Your task to perform on an android device: Clear the shopping cart on newegg. Image 0: 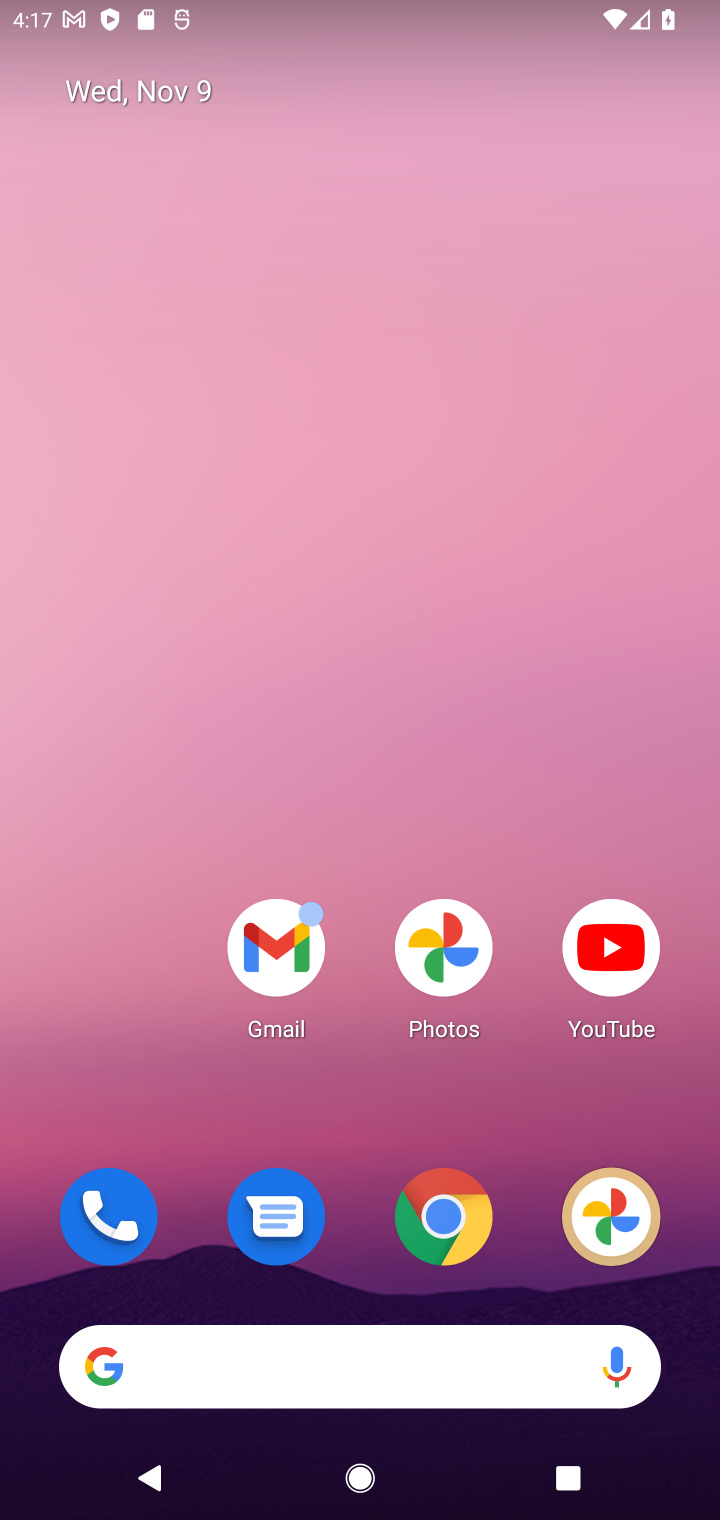
Step 0: drag from (365, 971) to (416, 102)
Your task to perform on an android device: Clear the shopping cart on newegg. Image 1: 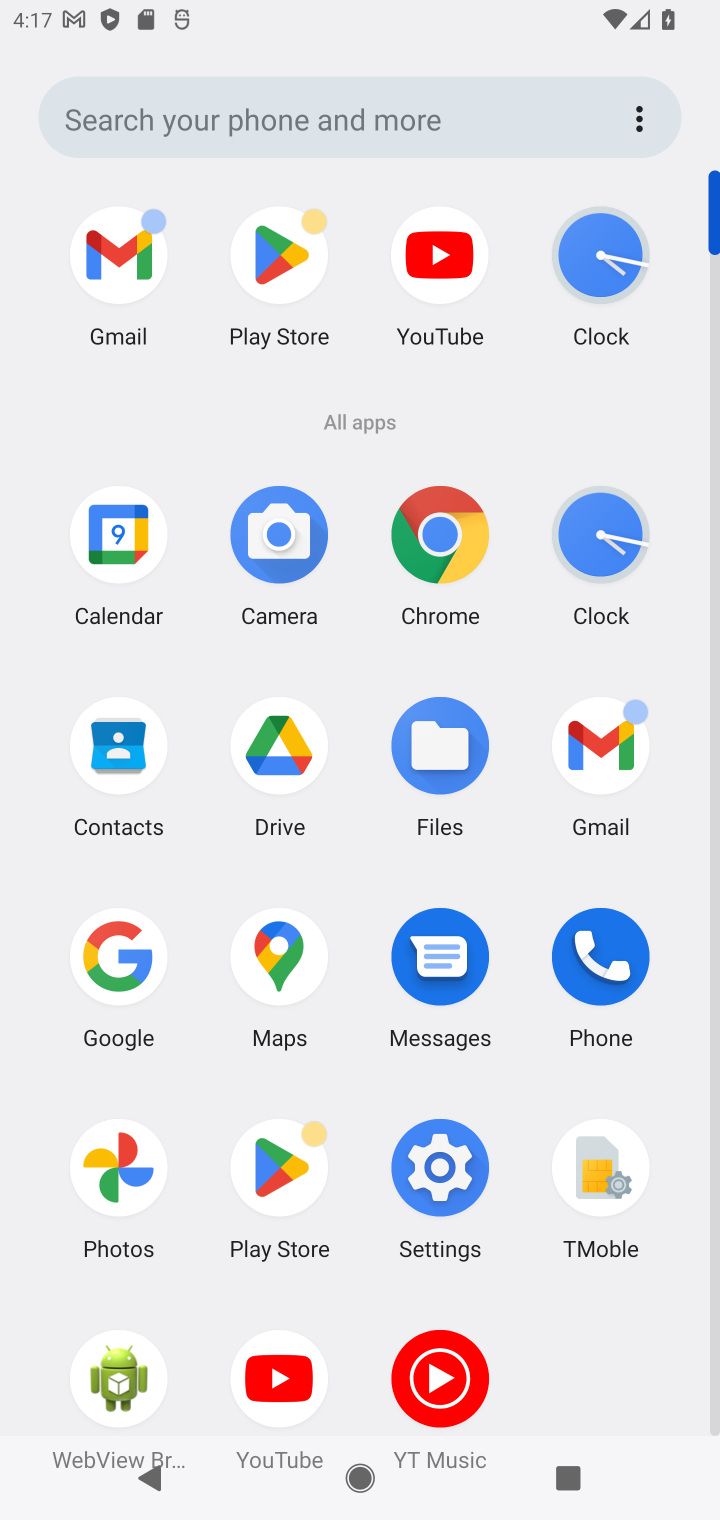
Step 1: click (442, 525)
Your task to perform on an android device: Clear the shopping cart on newegg. Image 2: 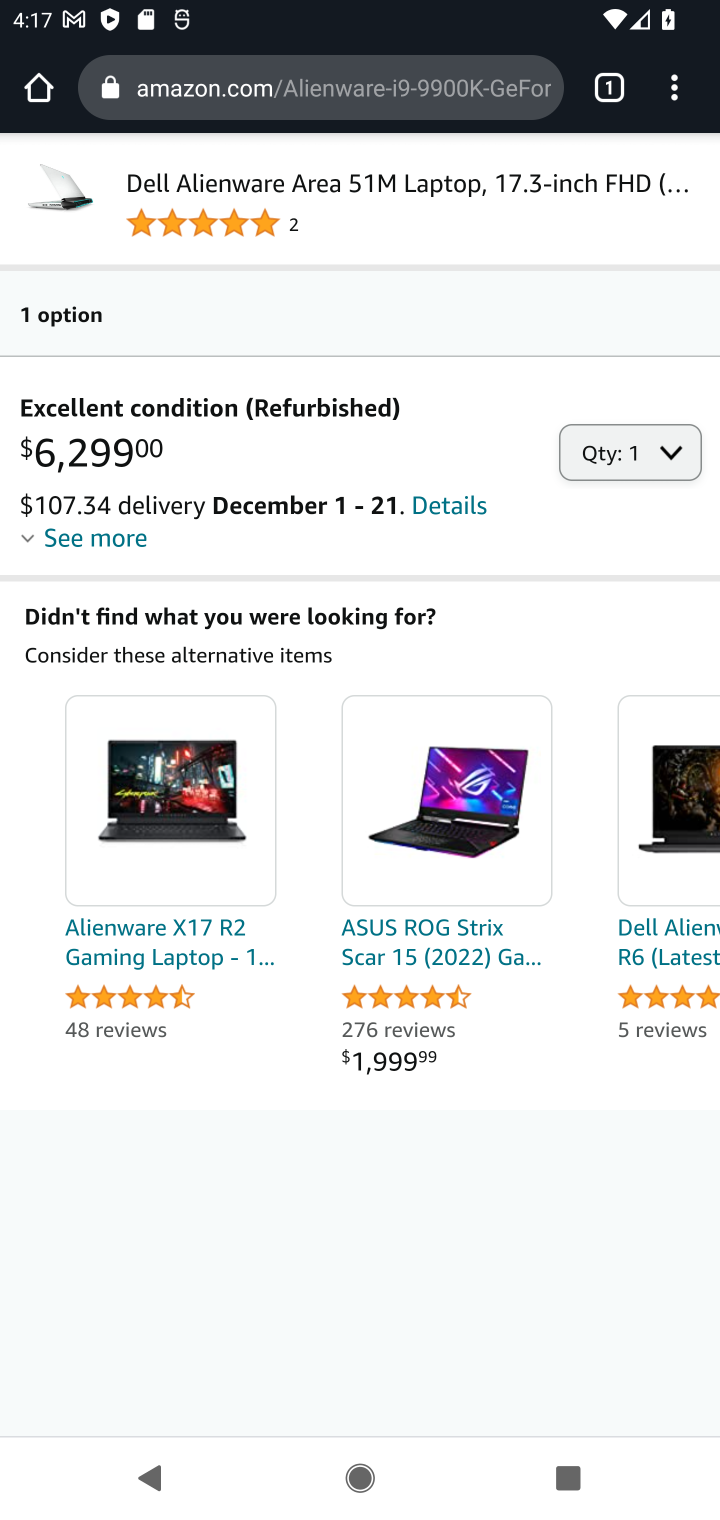
Step 2: click (383, 77)
Your task to perform on an android device: Clear the shopping cart on newegg. Image 3: 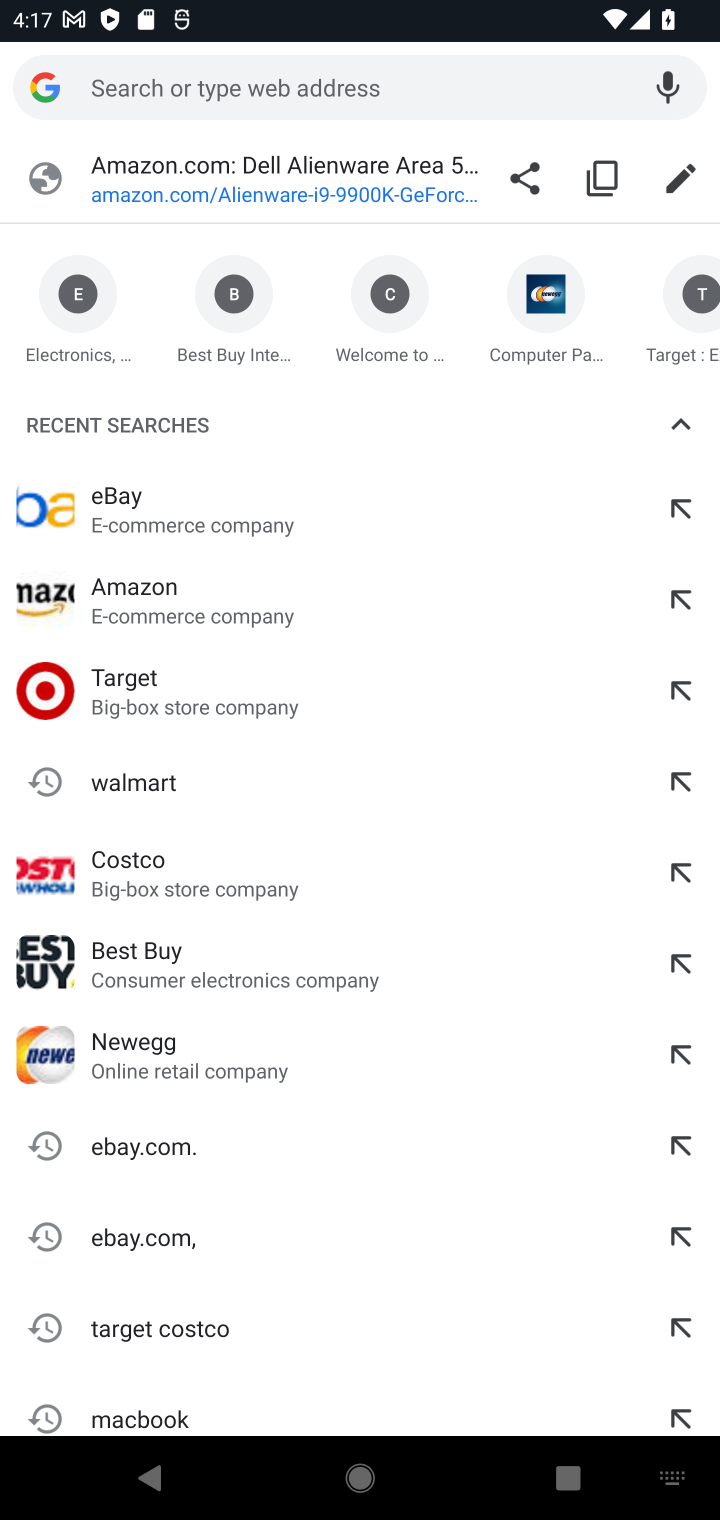
Step 3: type "newegg.com"
Your task to perform on an android device: Clear the shopping cart on newegg. Image 4: 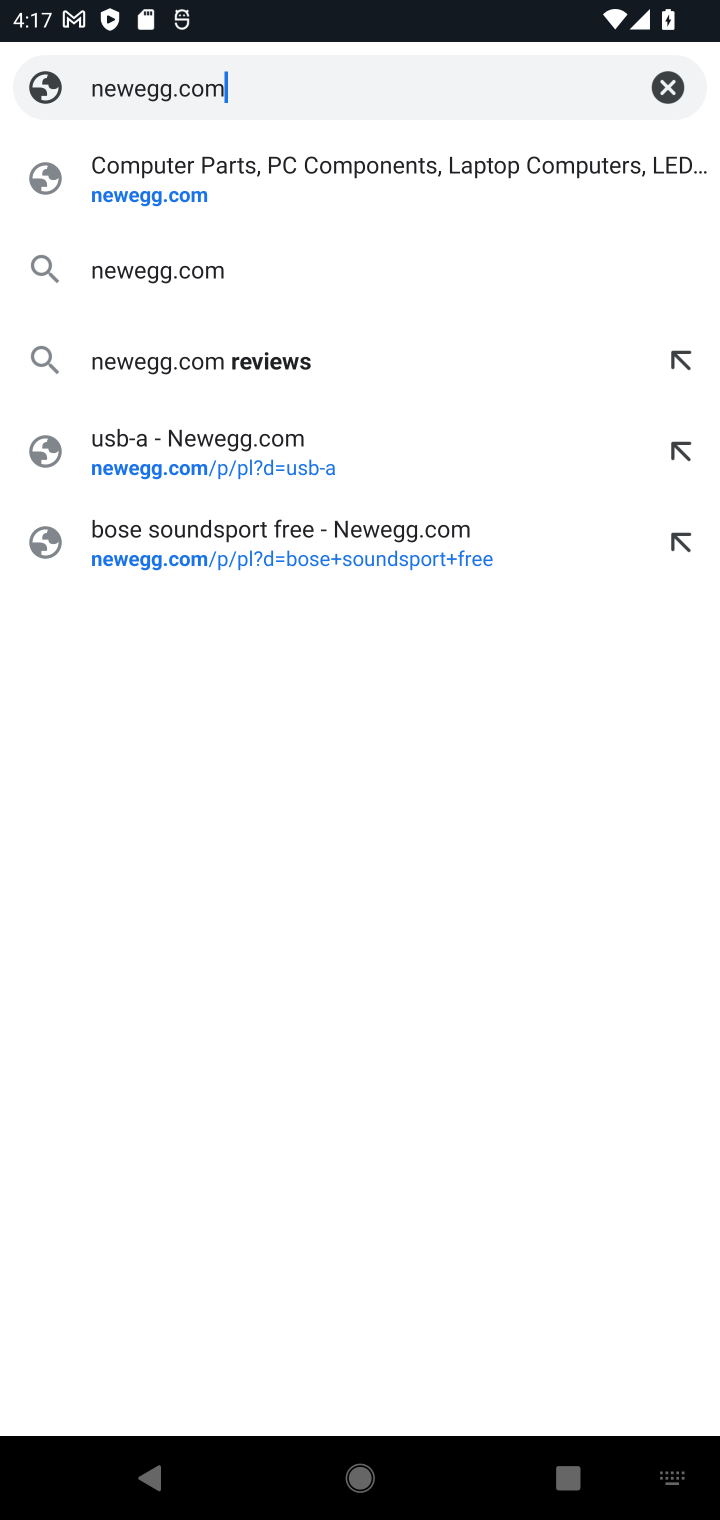
Step 4: press enter
Your task to perform on an android device: Clear the shopping cart on newegg. Image 5: 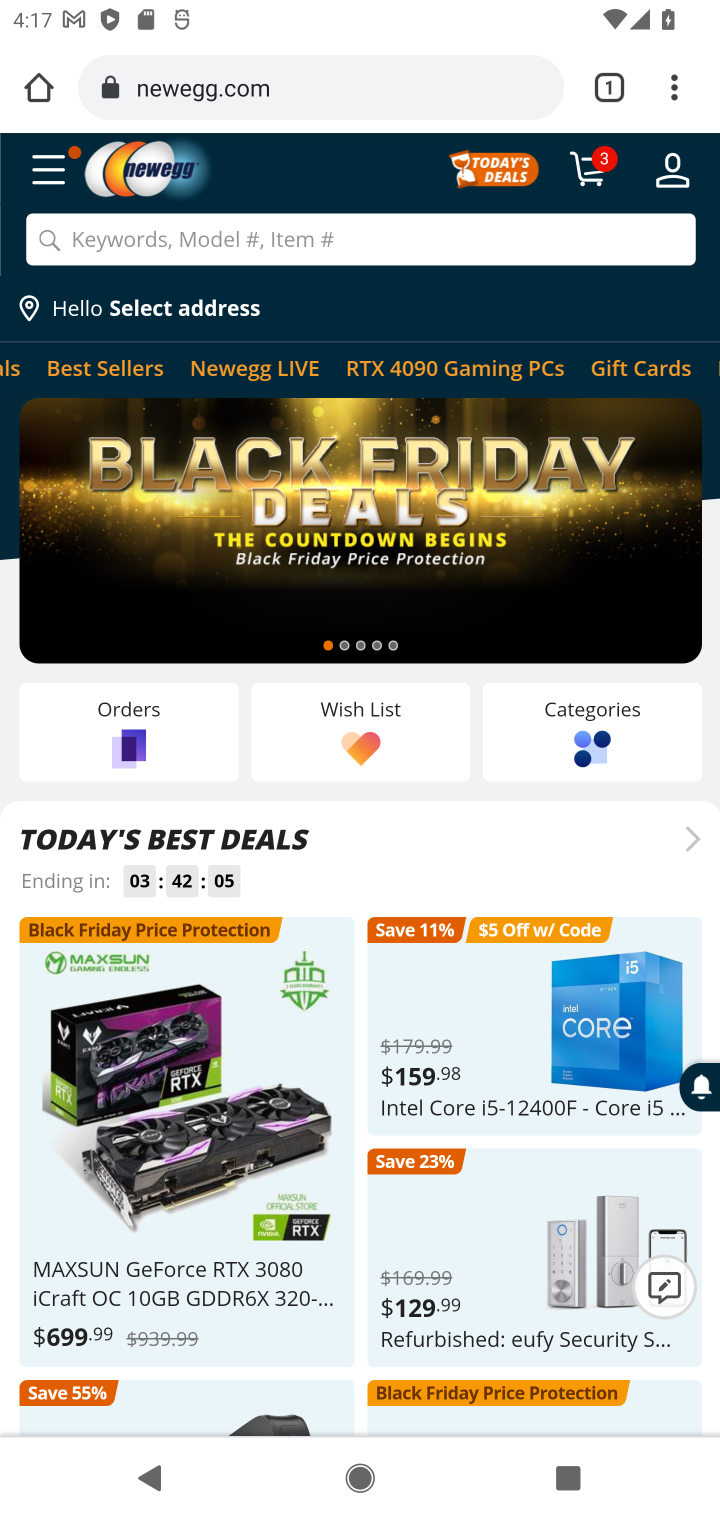
Step 5: click (595, 159)
Your task to perform on an android device: Clear the shopping cart on newegg. Image 6: 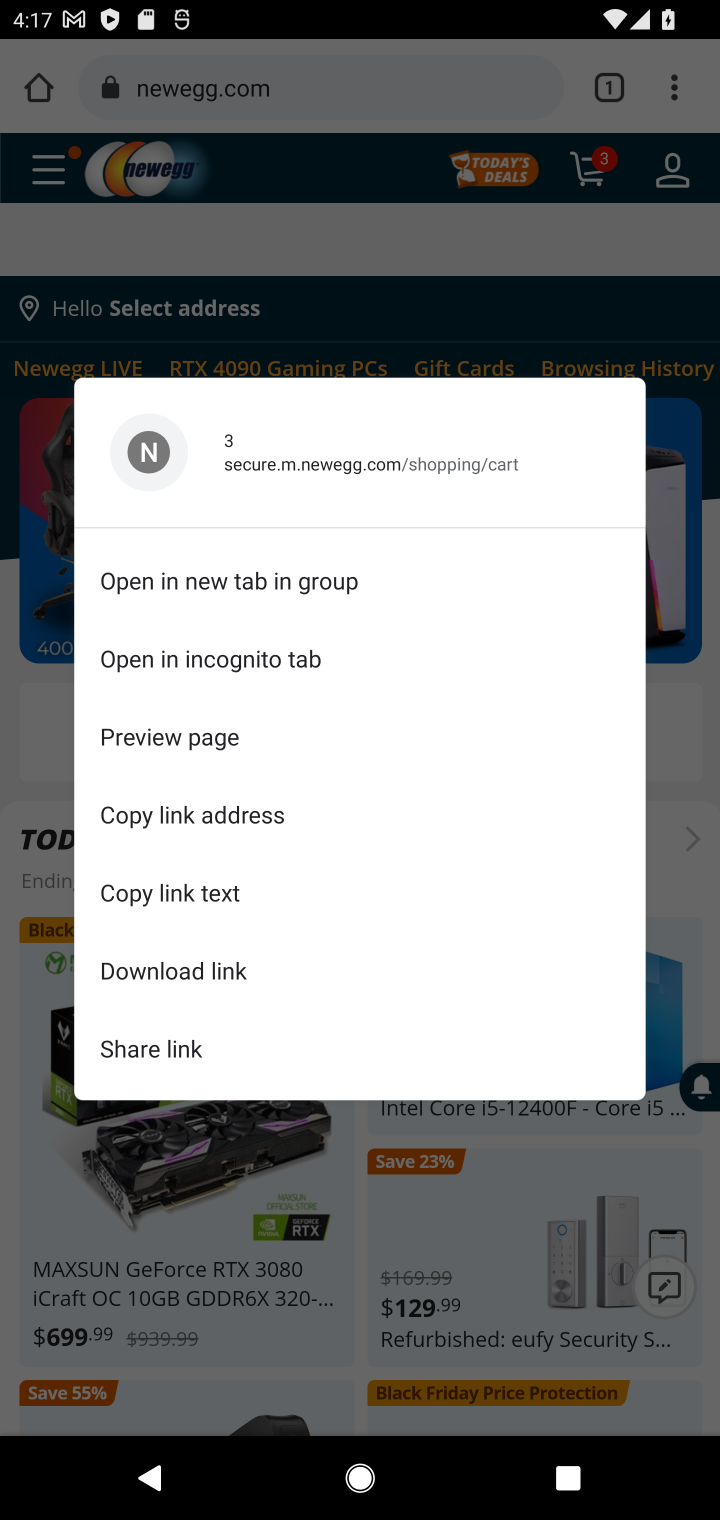
Step 6: click (587, 192)
Your task to perform on an android device: Clear the shopping cart on newegg. Image 7: 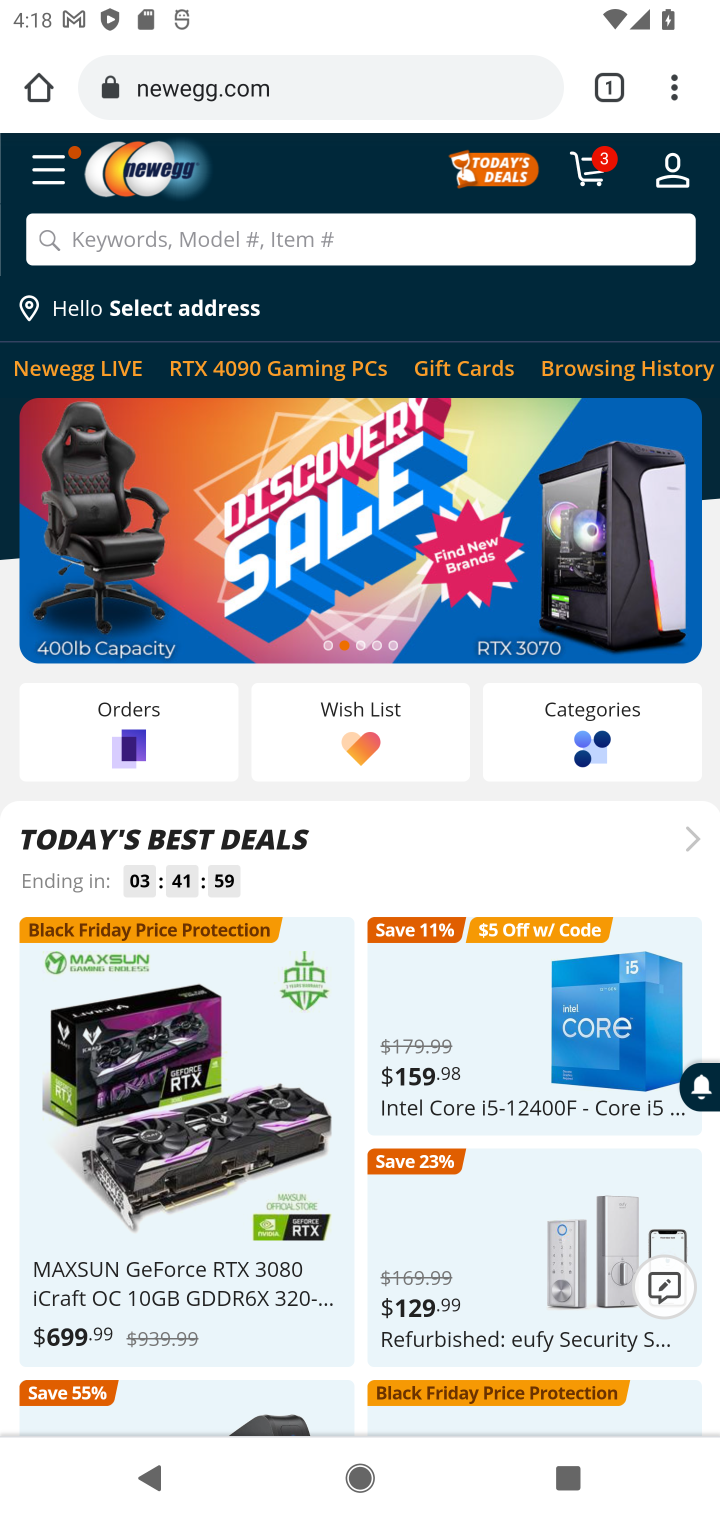
Step 7: click (587, 186)
Your task to perform on an android device: Clear the shopping cart on newegg. Image 8: 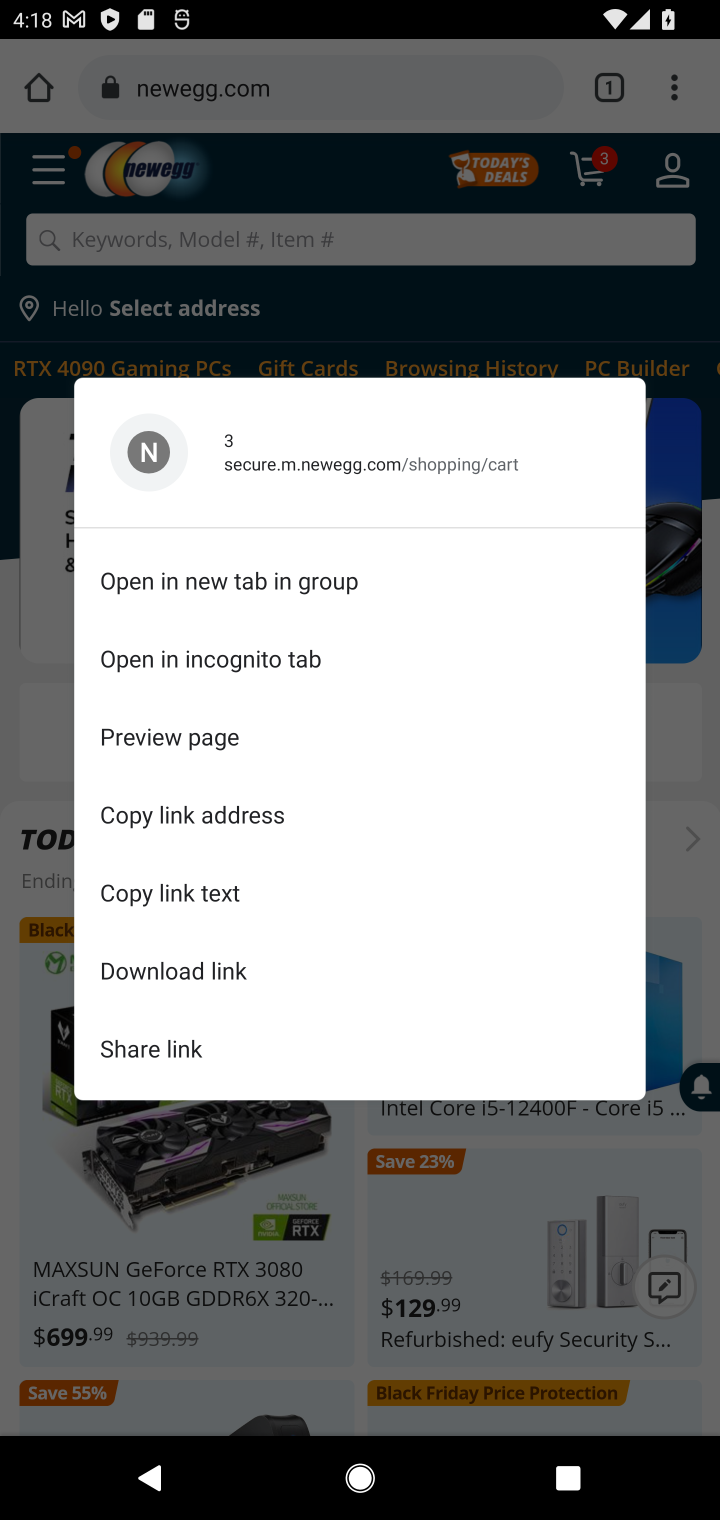
Step 8: click (595, 170)
Your task to perform on an android device: Clear the shopping cart on newegg. Image 9: 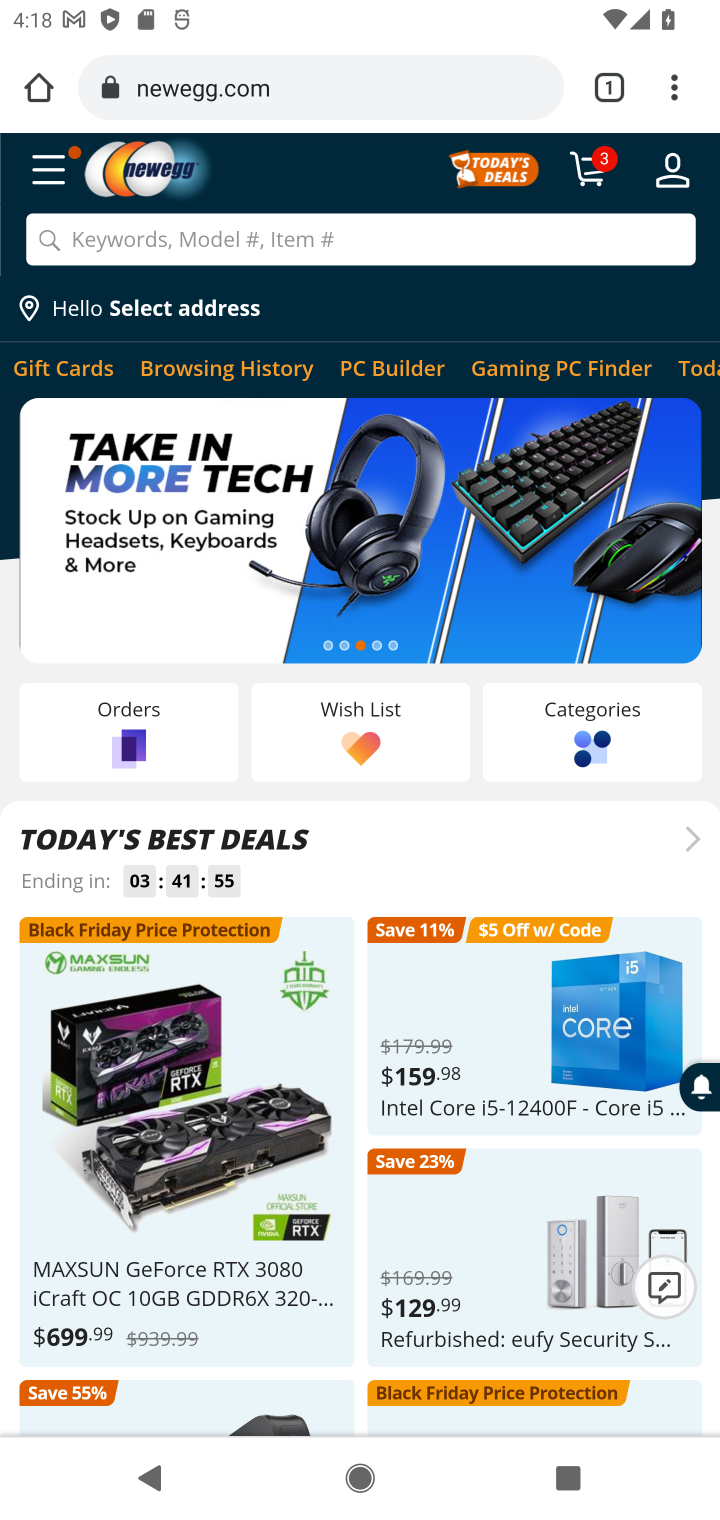
Step 9: click (595, 170)
Your task to perform on an android device: Clear the shopping cart on newegg. Image 10: 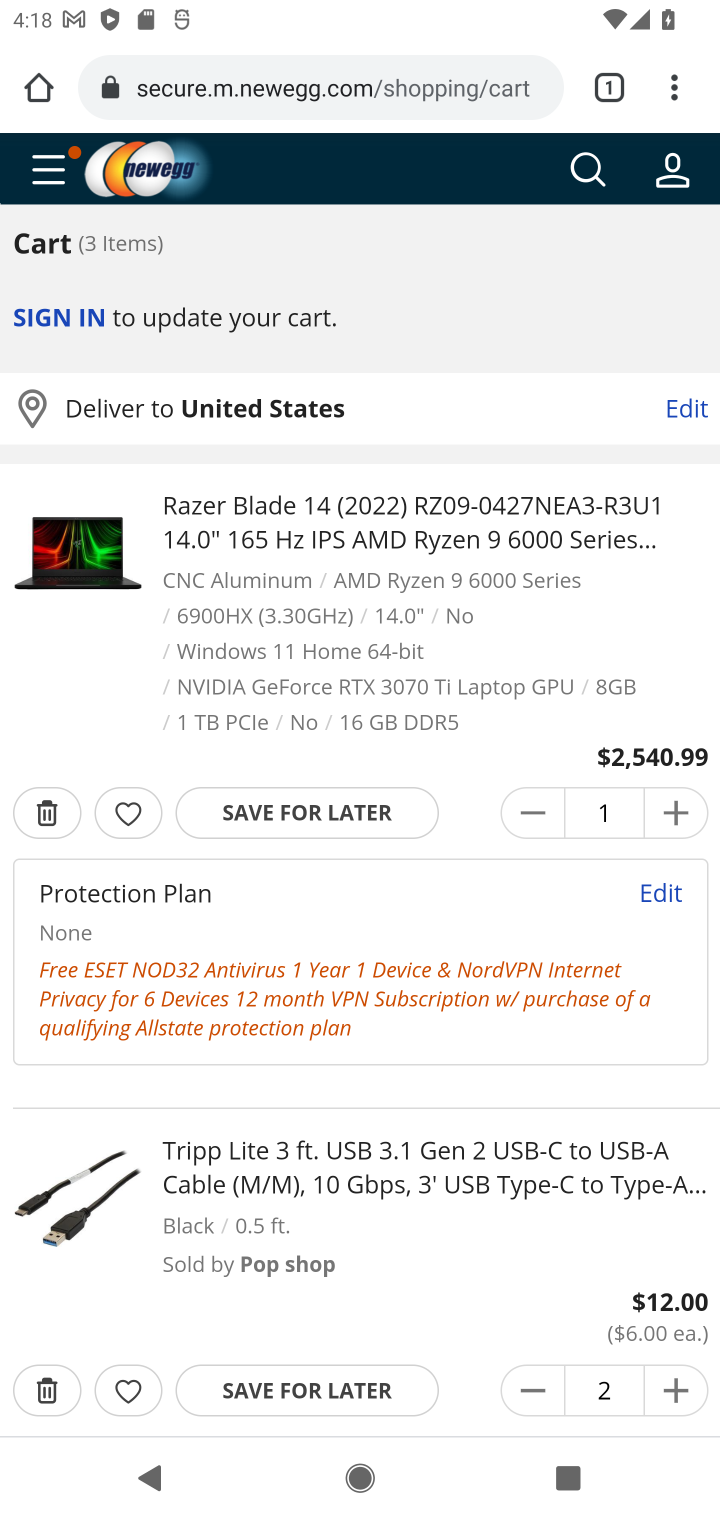
Step 10: click (44, 810)
Your task to perform on an android device: Clear the shopping cart on newegg. Image 11: 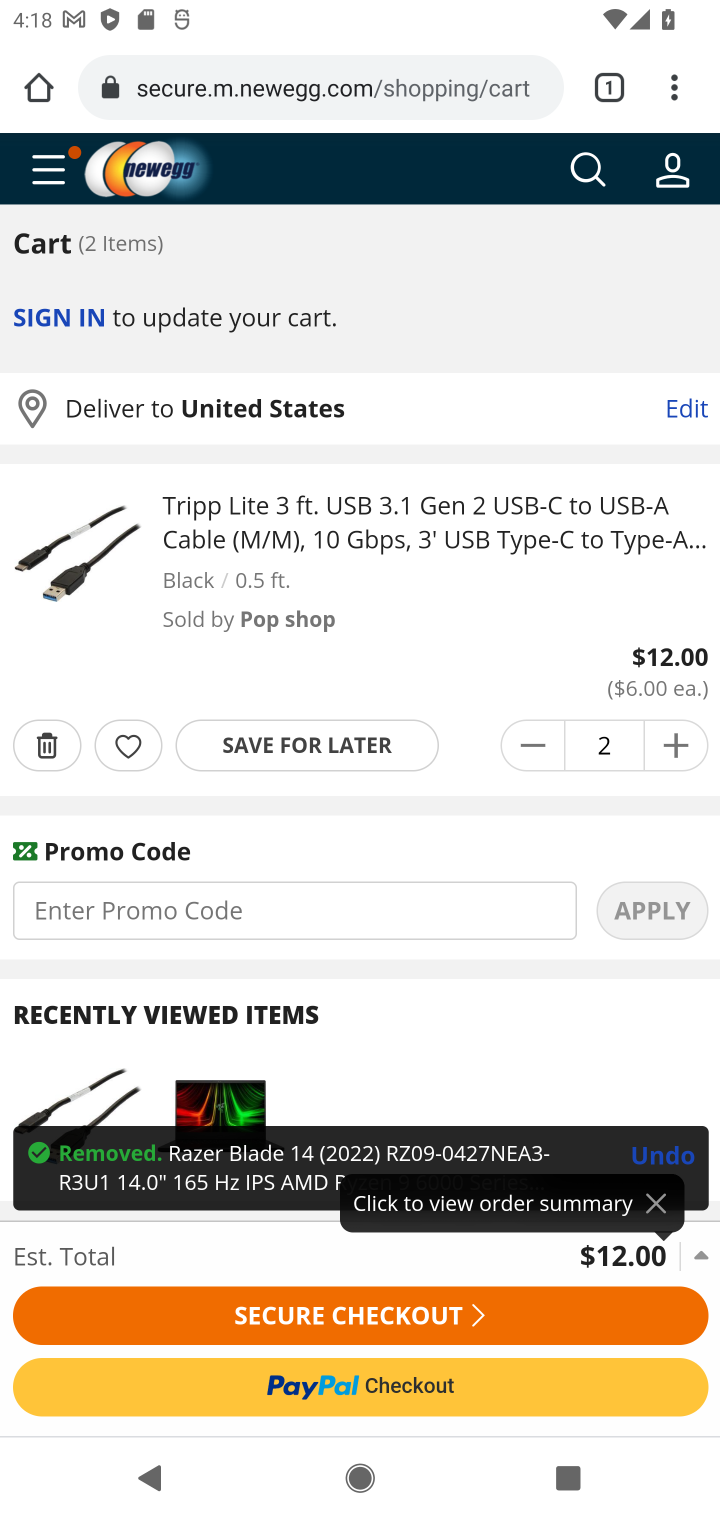
Step 11: click (58, 743)
Your task to perform on an android device: Clear the shopping cart on newegg. Image 12: 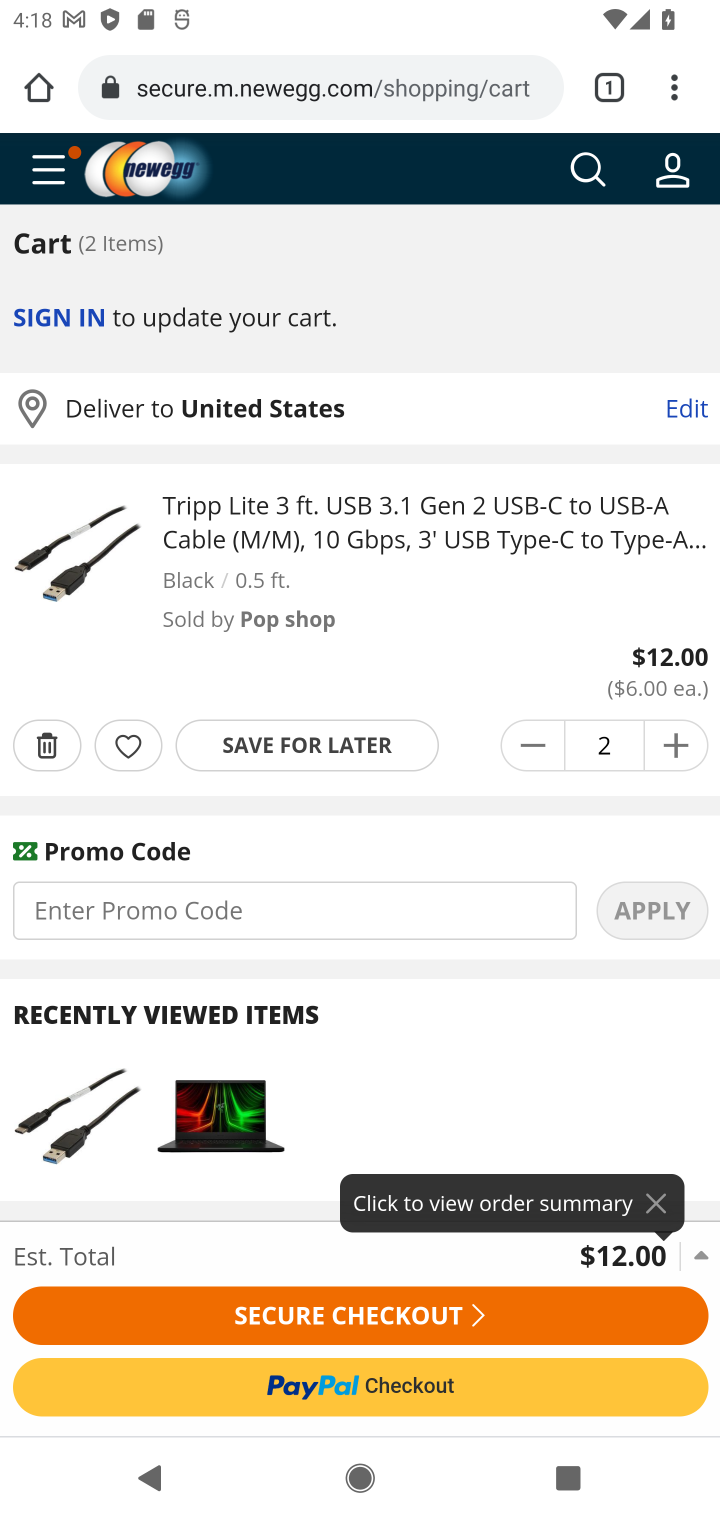
Step 12: click (47, 748)
Your task to perform on an android device: Clear the shopping cart on newegg. Image 13: 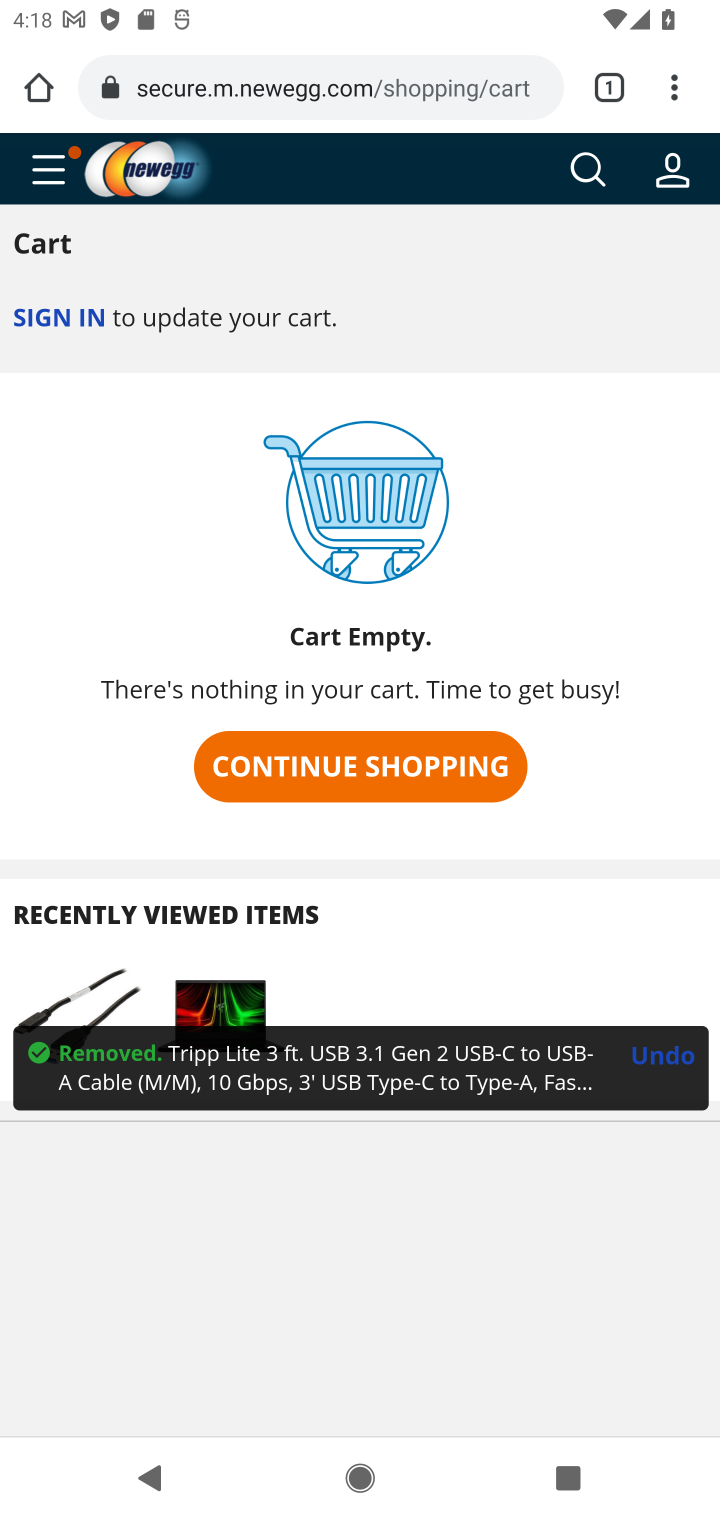
Step 13: task complete